Your task to perform on an android device: open wifi settings Image 0: 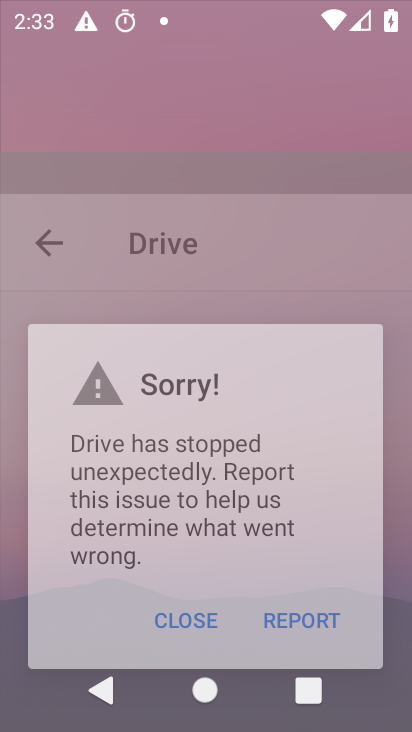
Step 0: press back button
Your task to perform on an android device: open wifi settings Image 1: 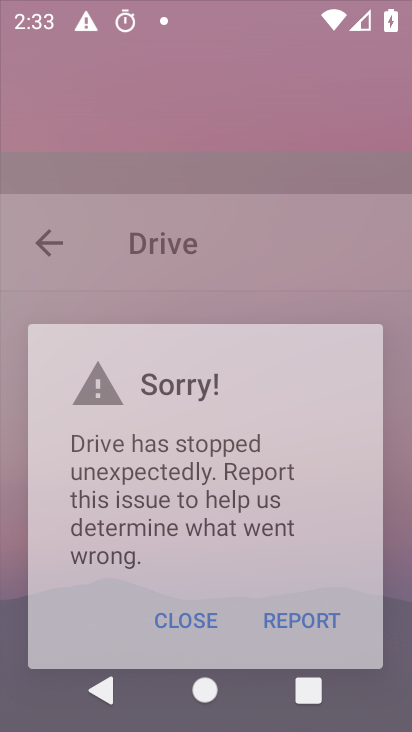
Step 1: click (188, 134)
Your task to perform on an android device: open wifi settings Image 2: 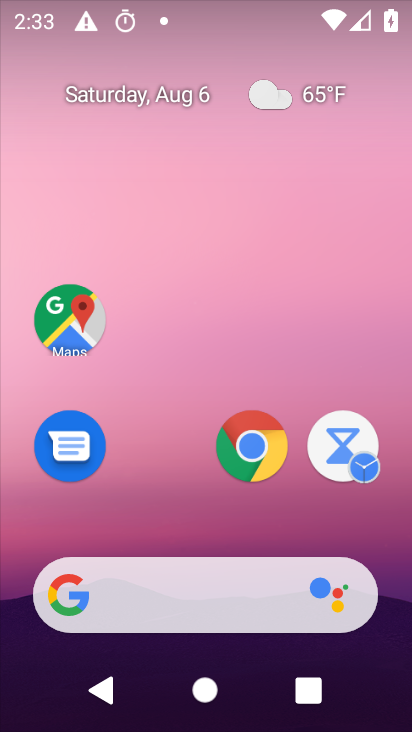
Step 2: drag from (236, 583) to (158, 90)
Your task to perform on an android device: open wifi settings Image 3: 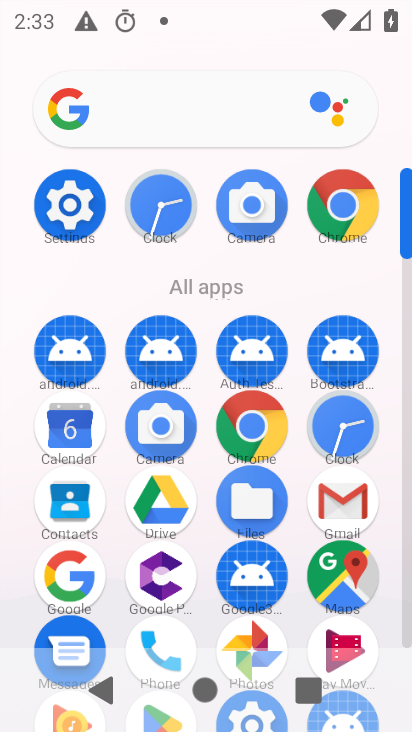
Step 3: click (58, 190)
Your task to perform on an android device: open wifi settings Image 4: 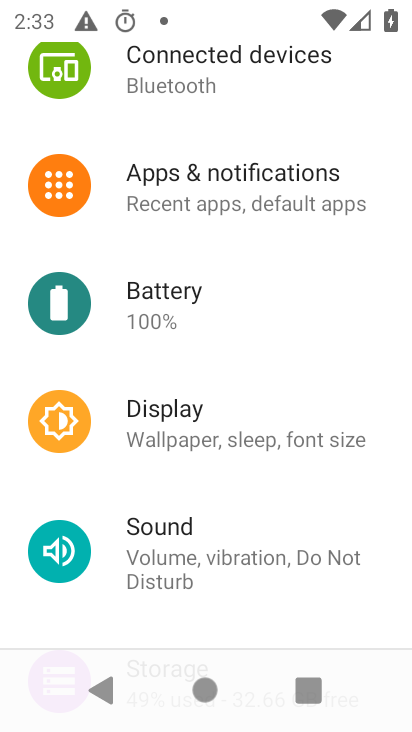
Step 4: drag from (198, 468) to (153, 82)
Your task to perform on an android device: open wifi settings Image 5: 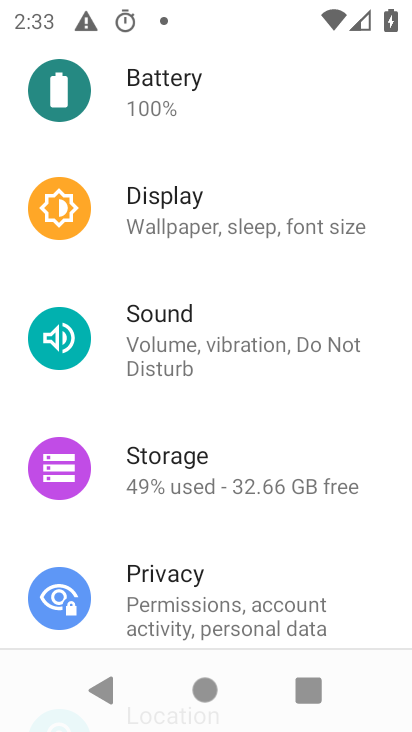
Step 5: drag from (162, 147) to (199, 430)
Your task to perform on an android device: open wifi settings Image 6: 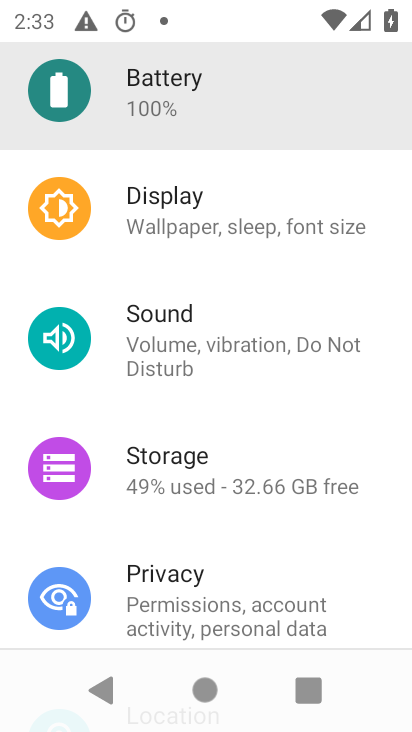
Step 6: drag from (173, 171) to (191, 459)
Your task to perform on an android device: open wifi settings Image 7: 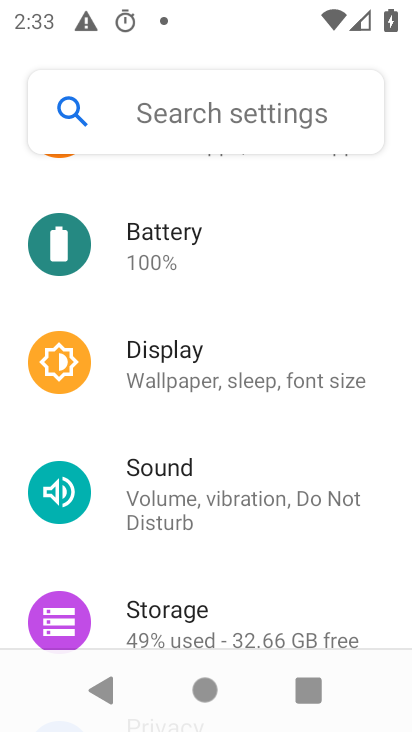
Step 7: drag from (160, 403) to (178, 546)
Your task to perform on an android device: open wifi settings Image 8: 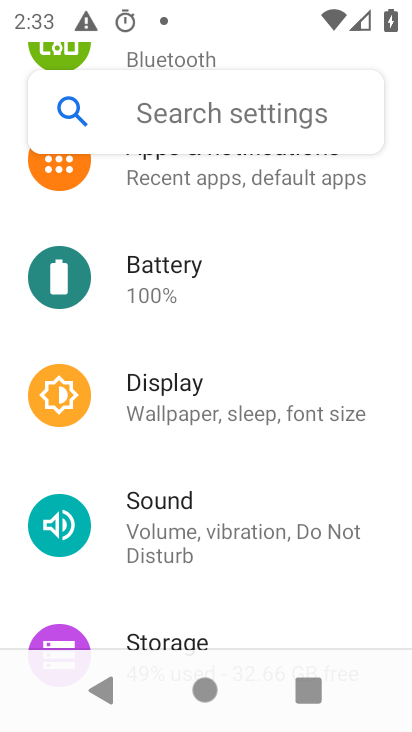
Step 8: drag from (180, 334) to (210, 530)
Your task to perform on an android device: open wifi settings Image 9: 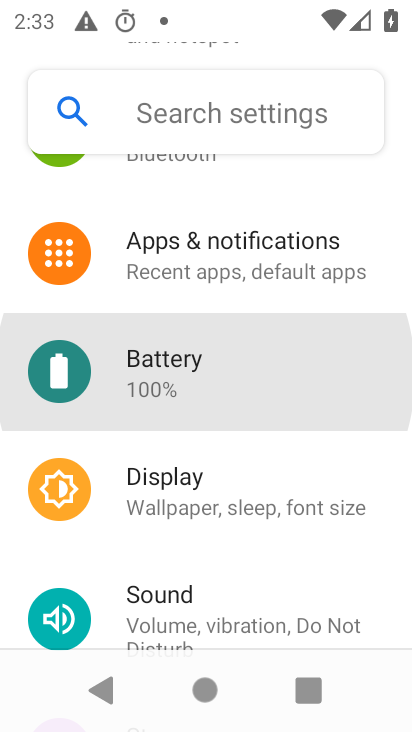
Step 9: drag from (191, 389) to (212, 545)
Your task to perform on an android device: open wifi settings Image 10: 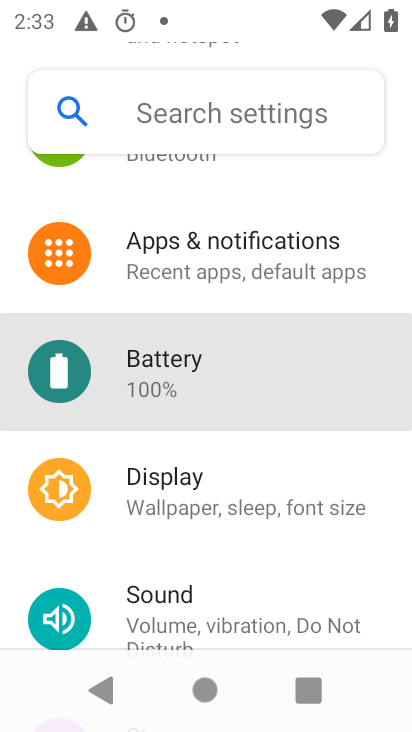
Step 10: drag from (170, 341) to (195, 536)
Your task to perform on an android device: open wifi settings Image 11: 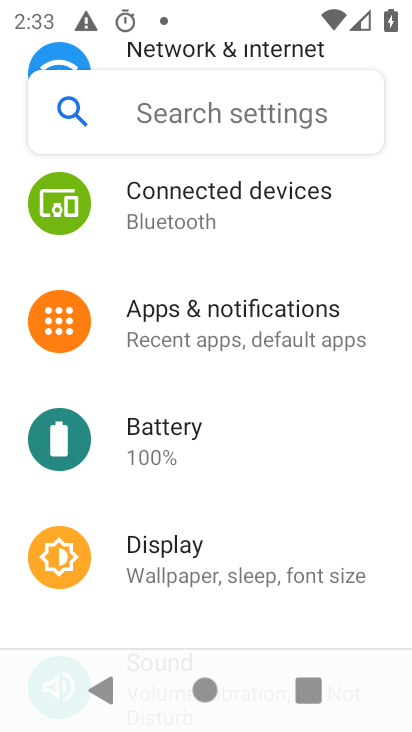
Step 11: drag from (191, 336) to (203, 466)
Your task to perform on an android device: open wifi settings Image 12: 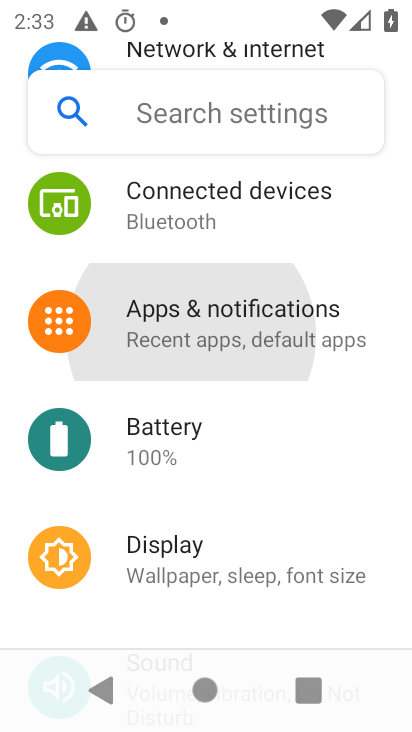
Step 12: drag from (200, 382) to (215, 556)
Your task to perform on an android device: open wifi settings Image 13: 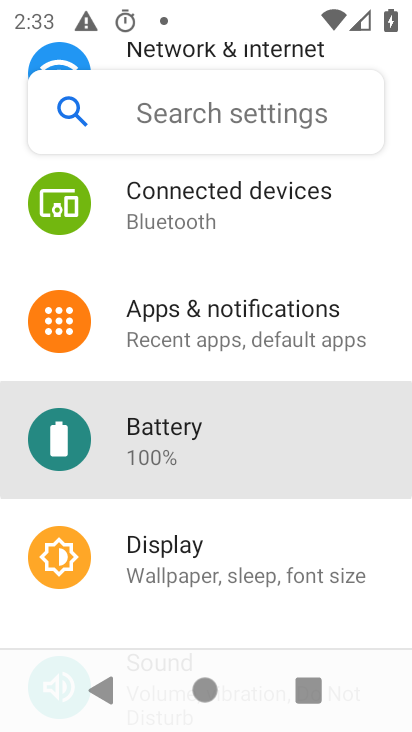
Step 13: drag from (163, 345) to (182, 517)
Your task to perform on an android device: open wifi settings Image 14: 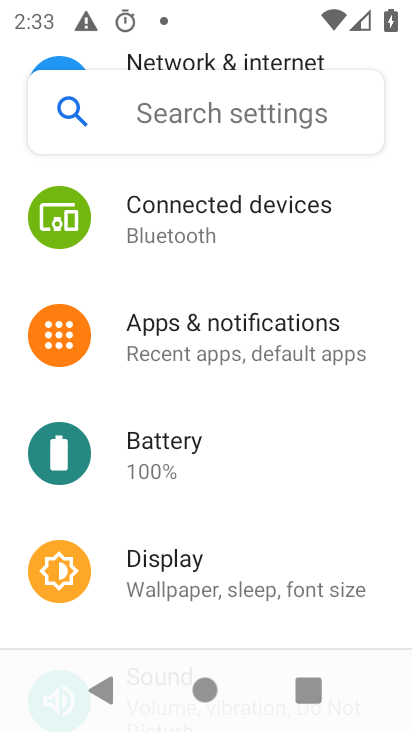
Step 14: drag from (167, 267) to (214, 510)
Your task to perform on an android device: open wifi settings Image 15: 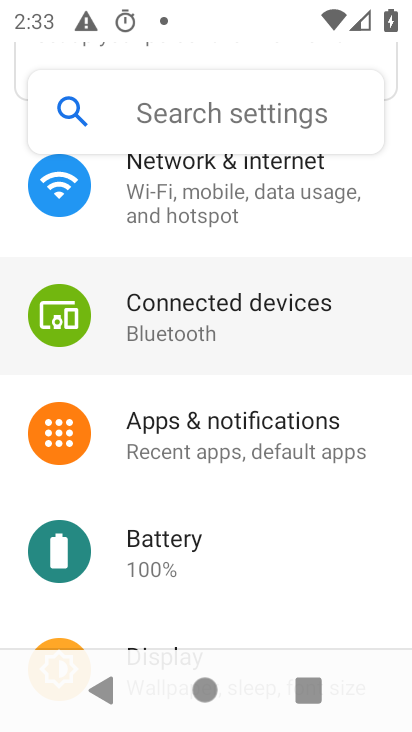
Step 15: drag from (220, 284) to (232, 517)
Your task to perform on an android device: open wifi settings Image 16: 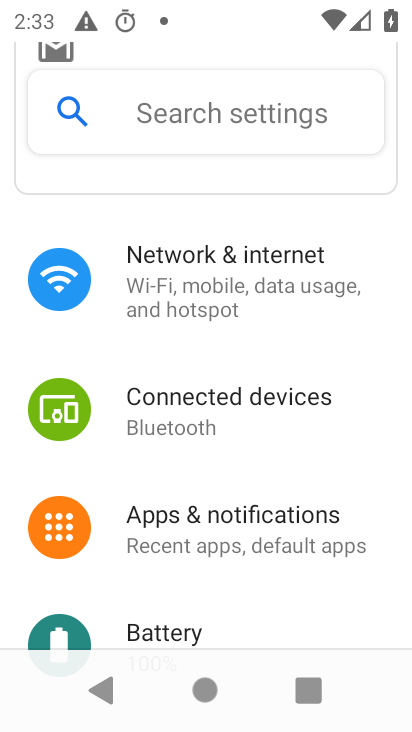
Step 16: drag from (171, 276) to (225, 492)
Your task to perform on an android device: open wifi settings Image 17: 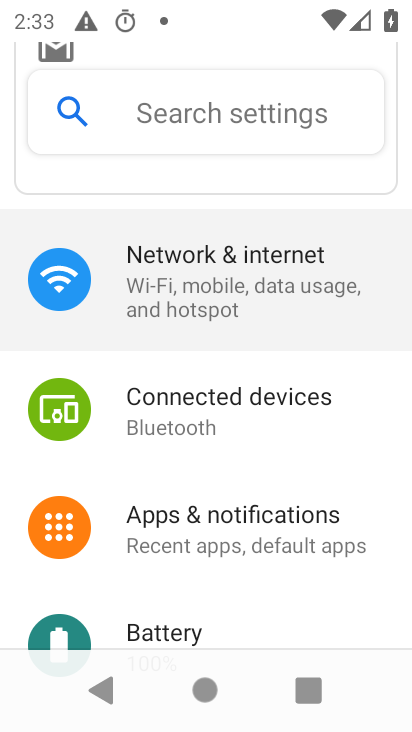
Step 17: drag from (219, 333) to (257, 588)
Your task to perform on an android device: open wifi settings Image 18: 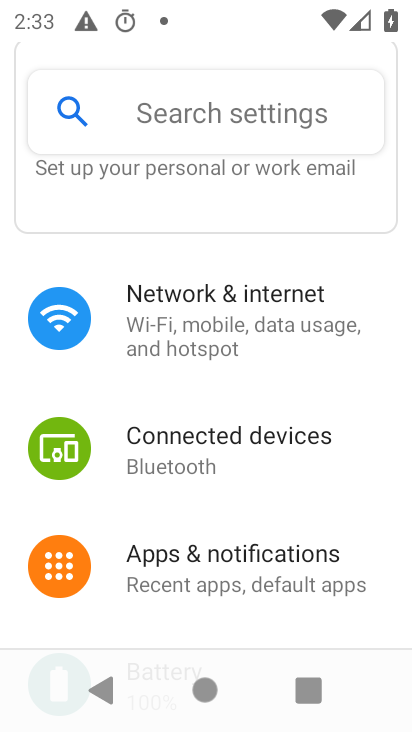
Step 18: drag from (142, 301) to (194, 577)
Your task to perform on an android device: open wifi settings Image 19: 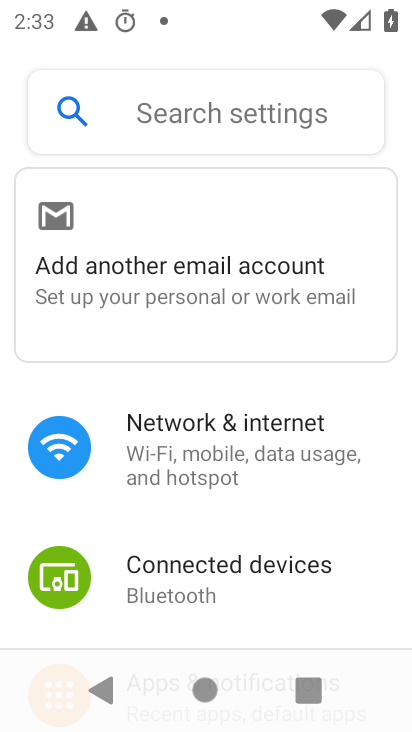
Step 19: click (193, 461)
Your task to perform on an android device: open wifi settings Image 20: 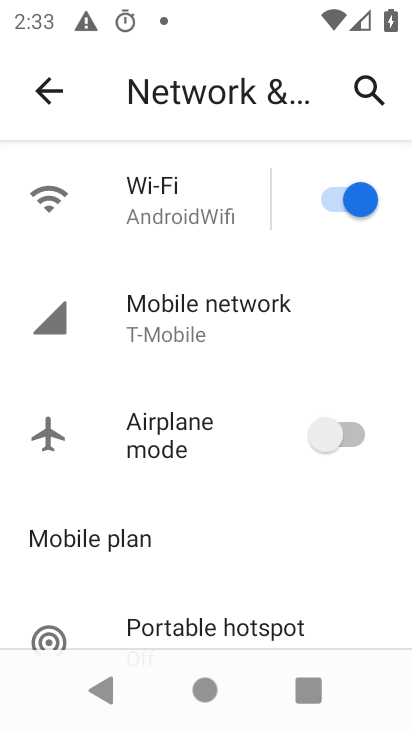
Step 20: task complete